Your task to perform on an android device: toggle pop-ups in chrome Image 0: 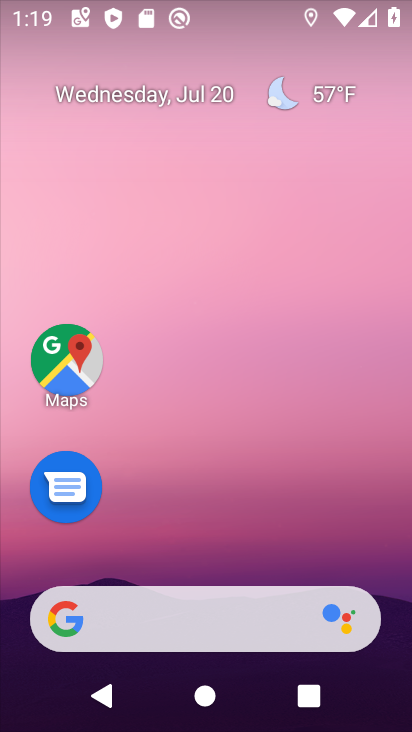
Step 0: drag from (269, 516) to (298, 0)
Your task to perform on an android device: toggle pop-ups in chrome Image 1: 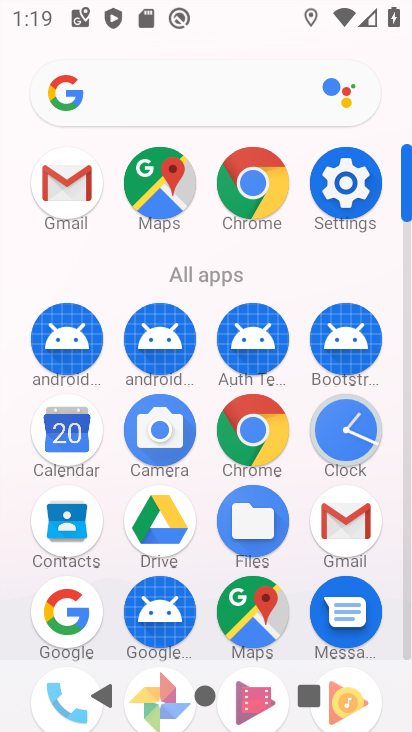
Step 1: click (250, 199)
Your task to perform on an android device: toggle pop-ups in chrome Image 2: 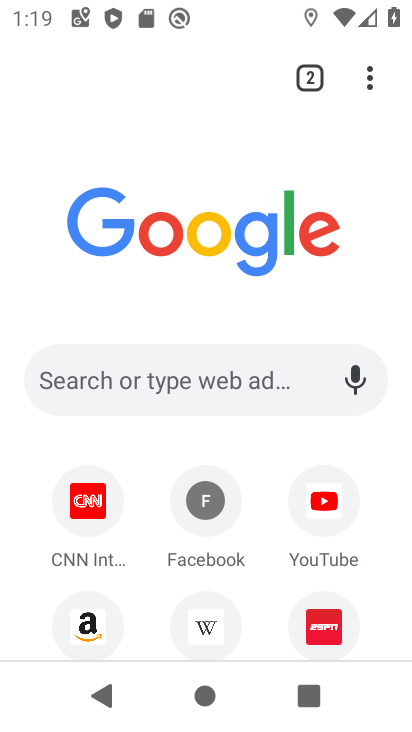
Step 2: drag from (368, 73) to (112, 541)
Your task to perform on an android device: toggle pop-ups in chrome Image 3: 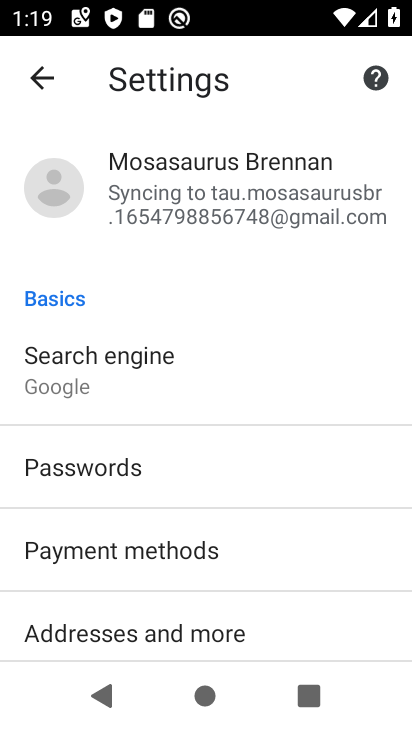
Step 3: drag from (75, 614) to (230, 62)
Your task to perform on an android device: toggle pop-ups in chrome Image 4: 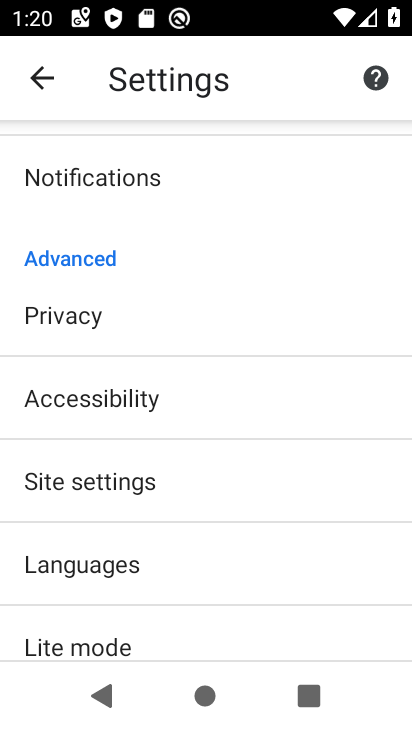
Step 4: click (83, 484)
Your task to perform on an android device: toggle pop-ups in chrome Image 5: 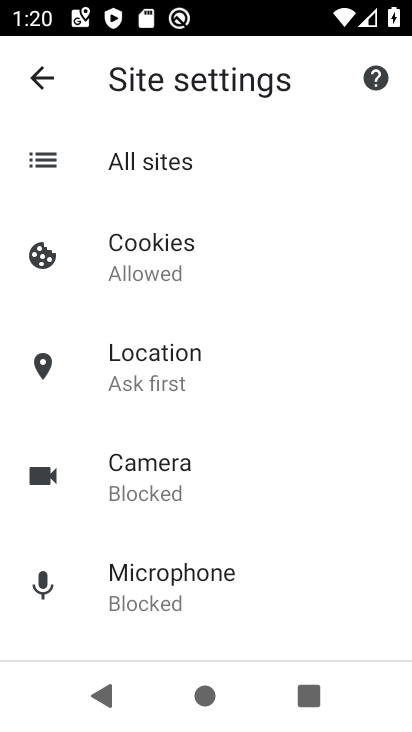
Step 5: drag from (203, 603) to (345, 25)
Your task to perform on an android device: toggle pop-ups in chrome Image 6: 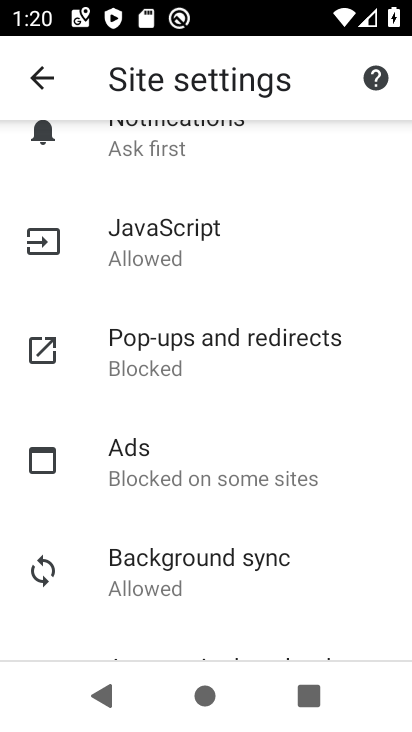
Step 6: click (132, 357)
Your task to perform on an android device: toggle pop-ups in chrome Image 7: 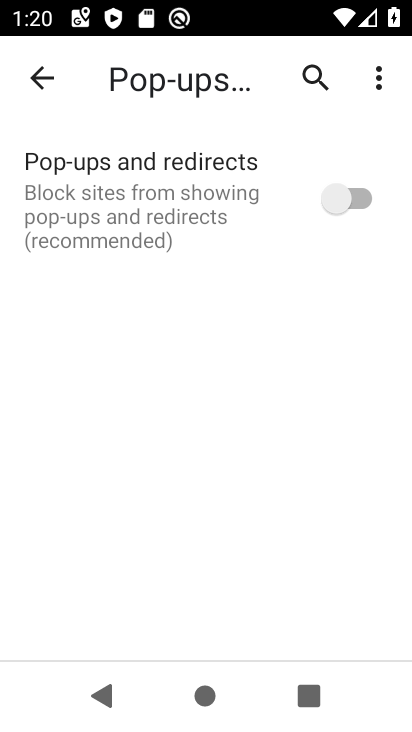
Step 7: click (330, 198)
Your task to perform on an android device: toggle pop-ups in chrome Image 8: 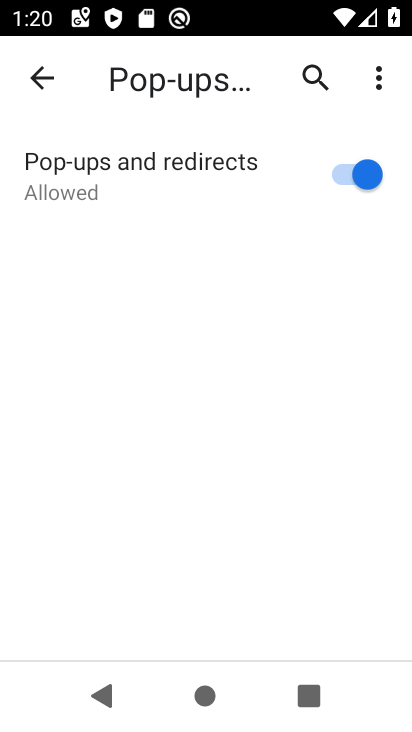
Step 8: task complete